Your task to perform on an android device: open app "Microsoft Authenticator" (install if not already installed) and go to login screen Image 0: 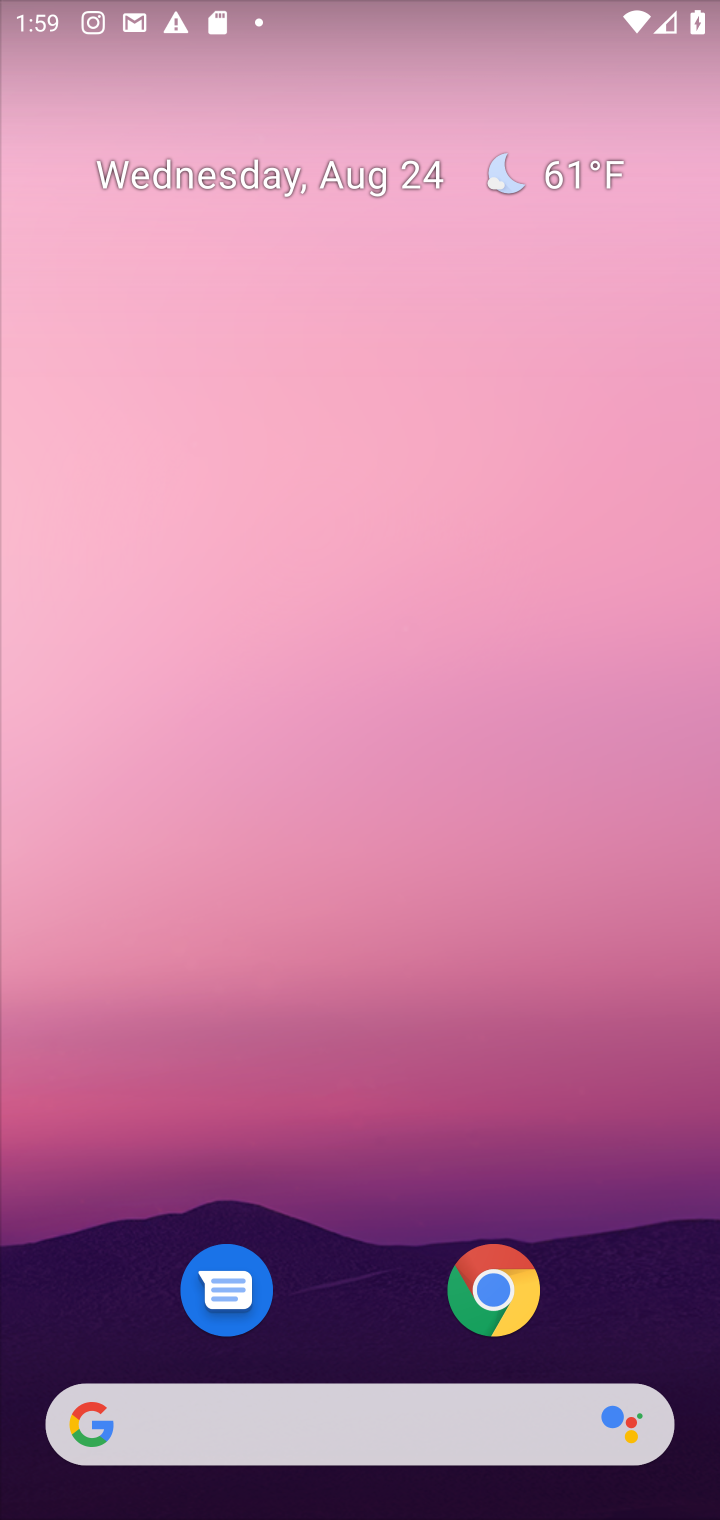
Step 0: drag from (366, 1231) to (348, 79)
Your task to perform on an android device: open app "Microsoft Authenticator" (install if not already installed) and go to login screen Image 1: 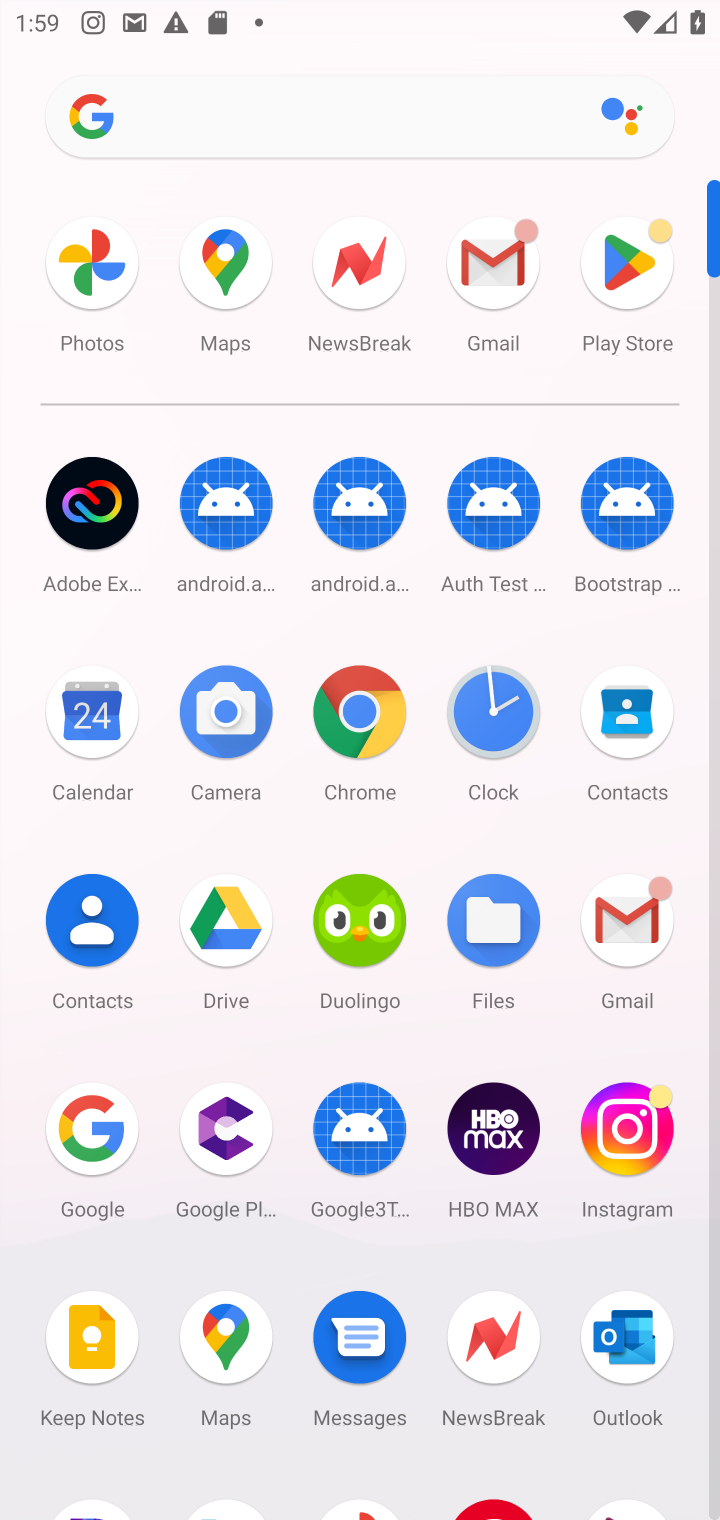
Step 1: click (641, 253)
Your task to perform on an android device: open app "Microsoft Authenticator" (install if not already installed) and go to login screen Image 2: 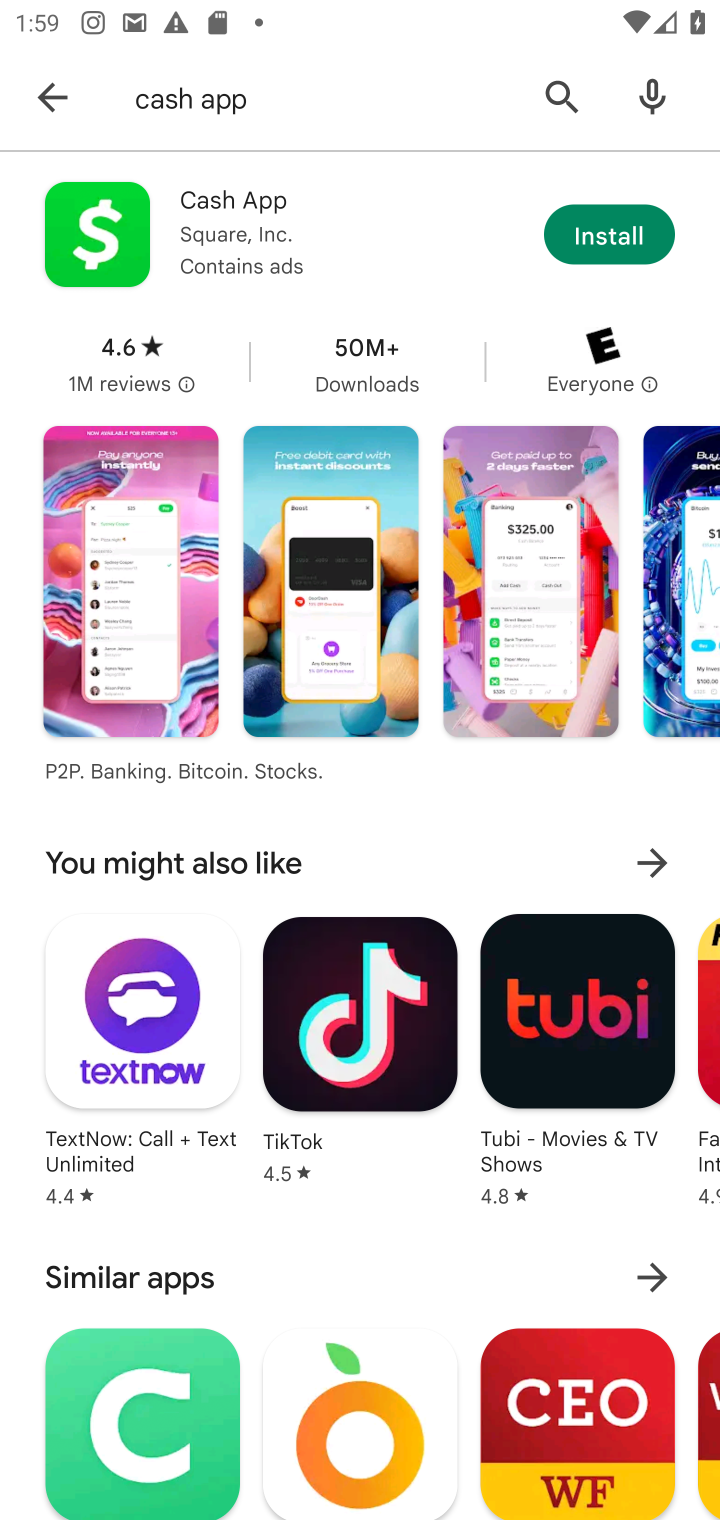
Step 2: click (51, 104)
Your task to perform on an android device: open app "Microsoft Authenticator" (install if not already installed) and go to login screen Image 3: 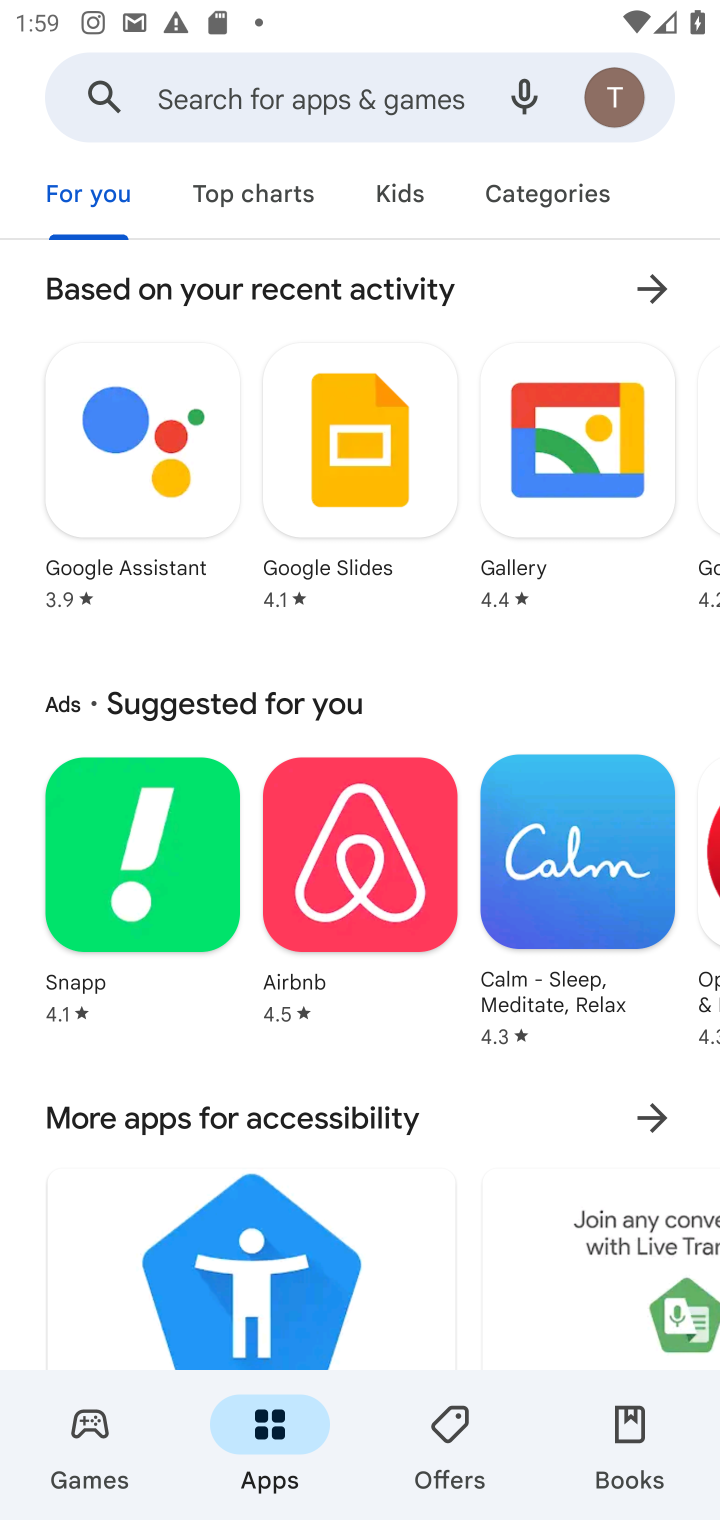
Step 3: click (249, 89)
Your task to perform on an android device: open app "Microsoft Authenticator" (install if not already installed) and go to login screen Image 4: 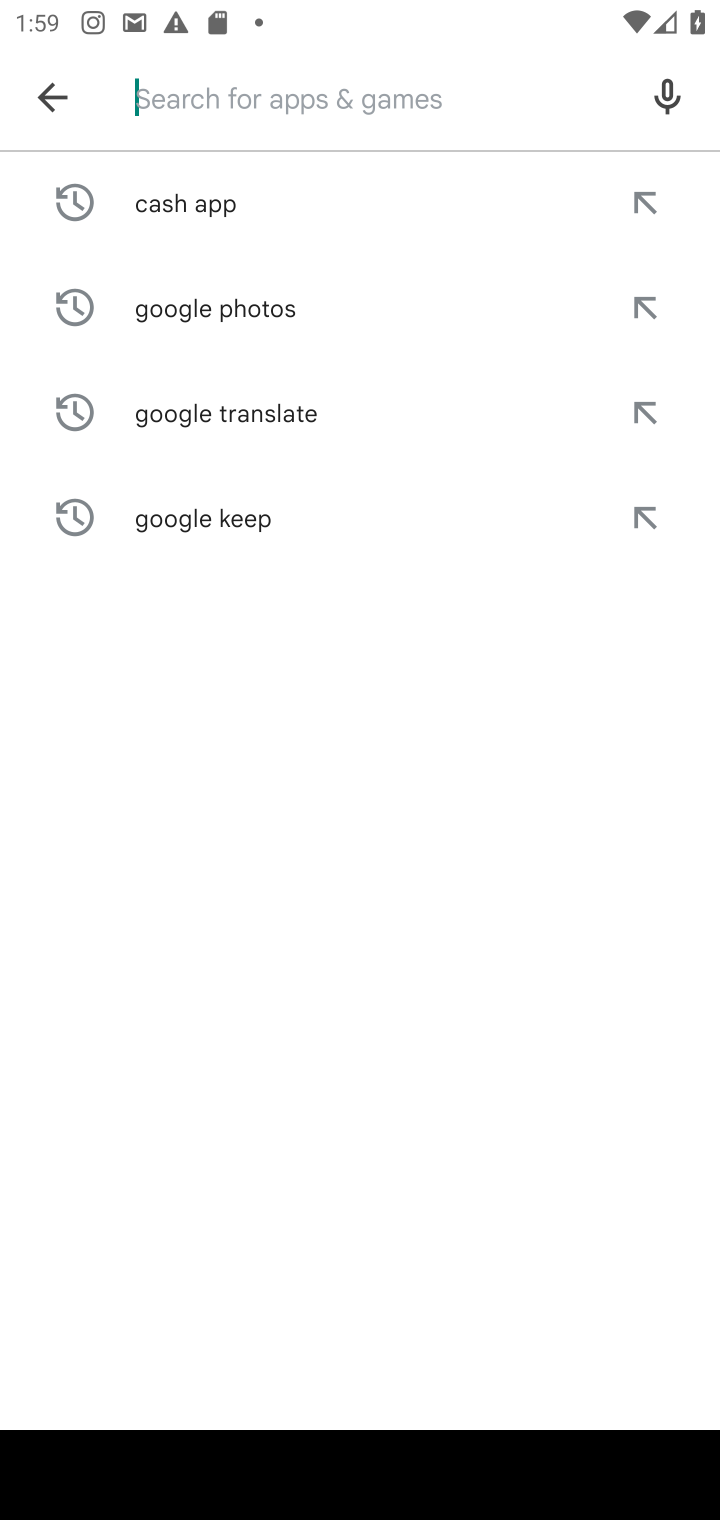
Step 4: type "Microsoft Authenticator"
Your task to perform on an android device: open app "Microsoft Authenticator" (install if not already installed) and go to login screen Image 5: 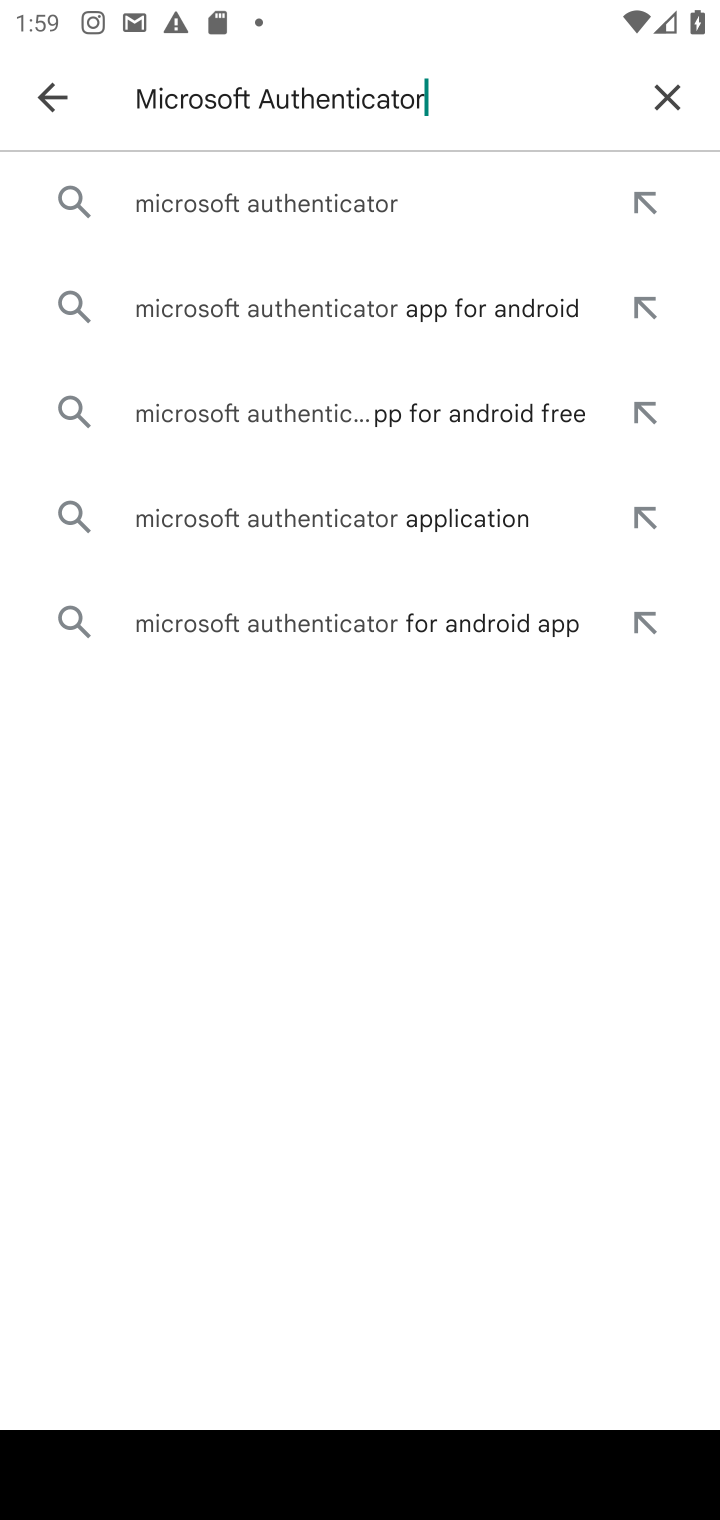
Step 5: click (370, 198)
Your task to perform on an android device: open app "Microsoft Authenticator" (install if not already installed) and go to login screen Image 6: 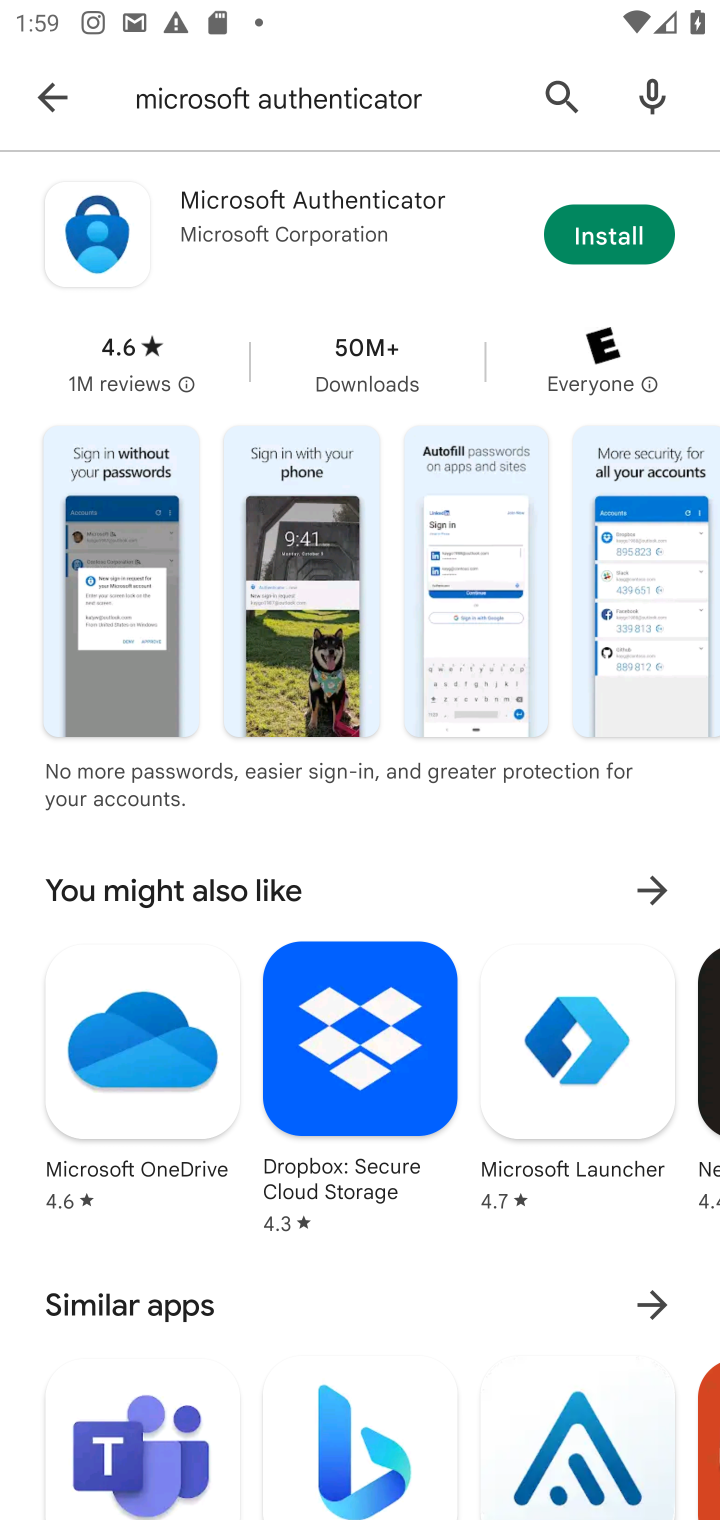
Step 6: click (616, 231)
Your task to perform on an android device: open app "Microsoft Authenticator" (install if not already installed) and go to login screen Image 7: 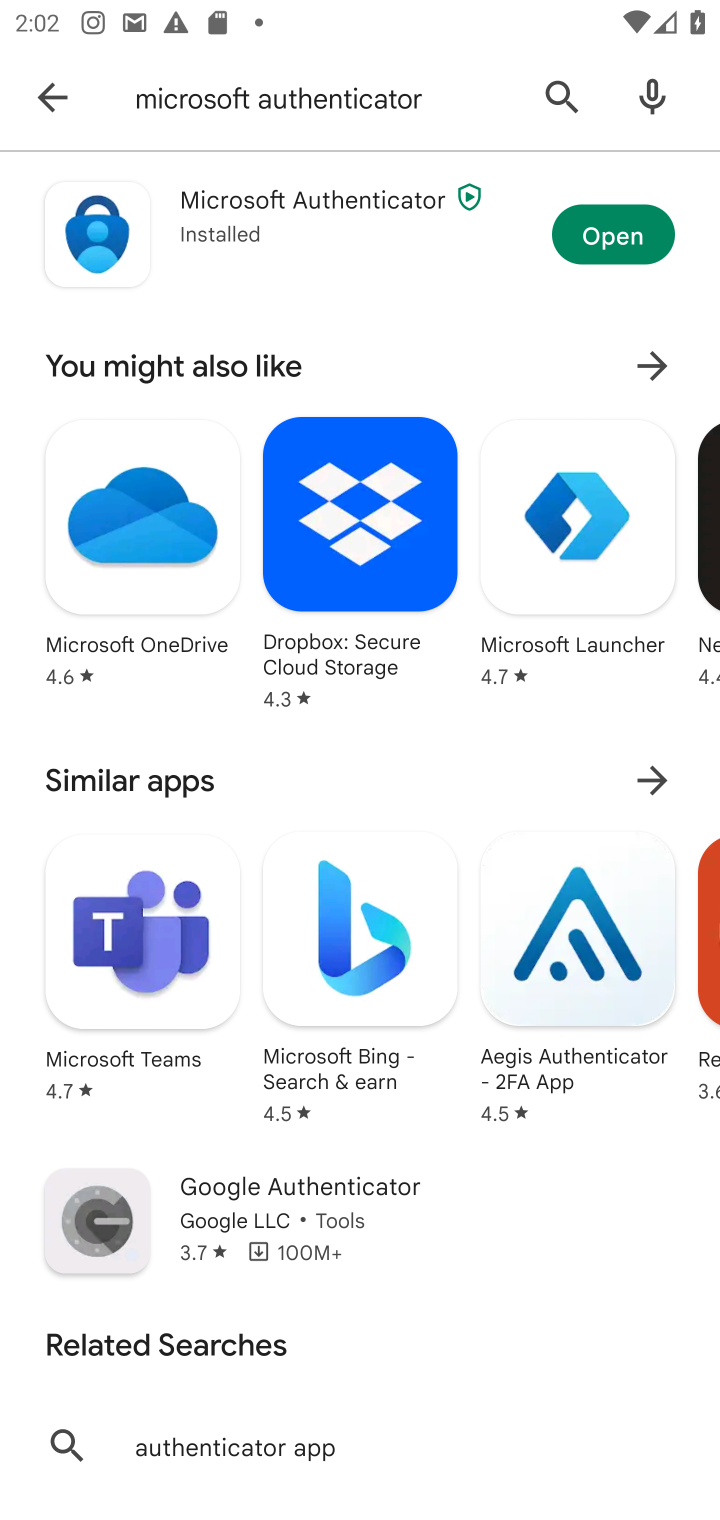
Step 7: click (616, 231)
Your task to perform on an android device: open app "Microsoft Authenticator" (install if not already installed) and go to login screen Image 8: 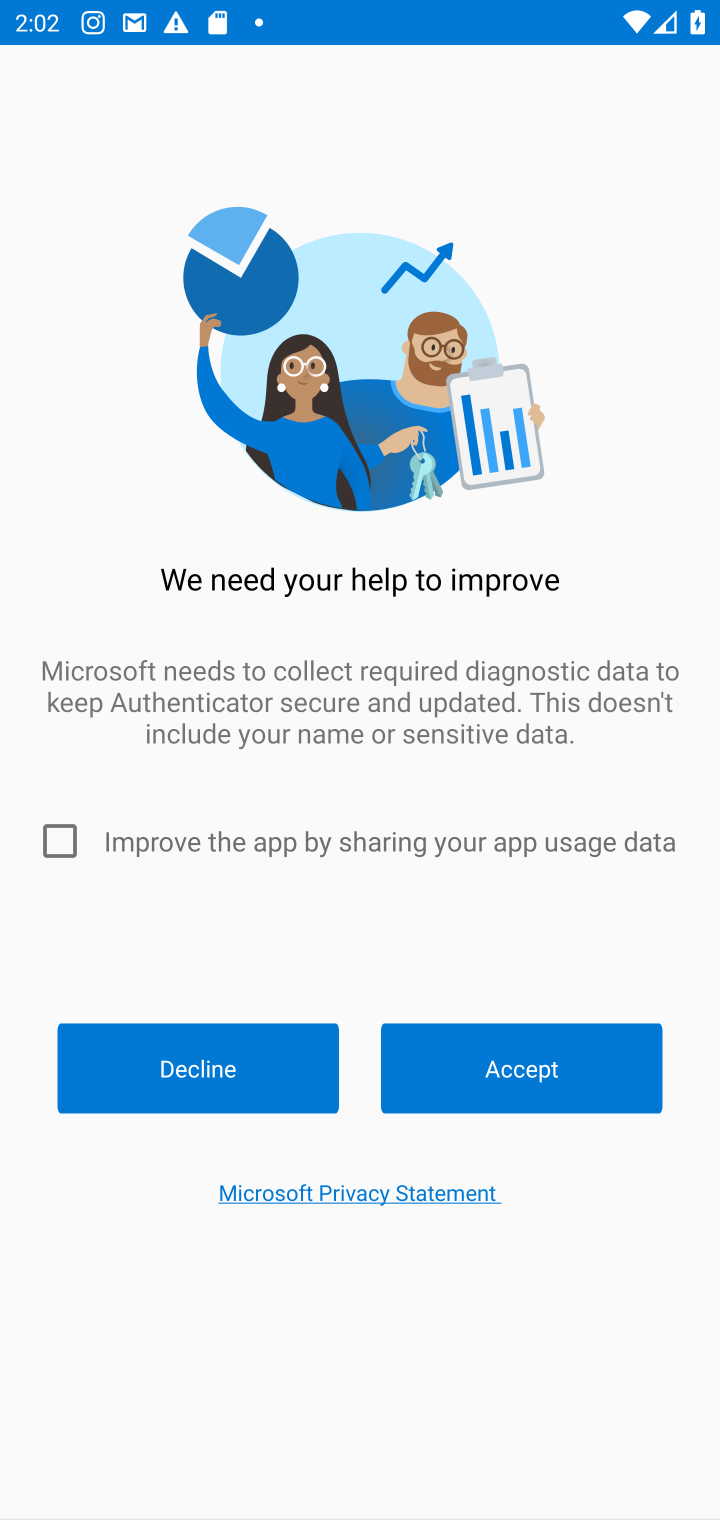
Step 8: task complete